Your task to perform on an android device: Open Android settings Image 0: 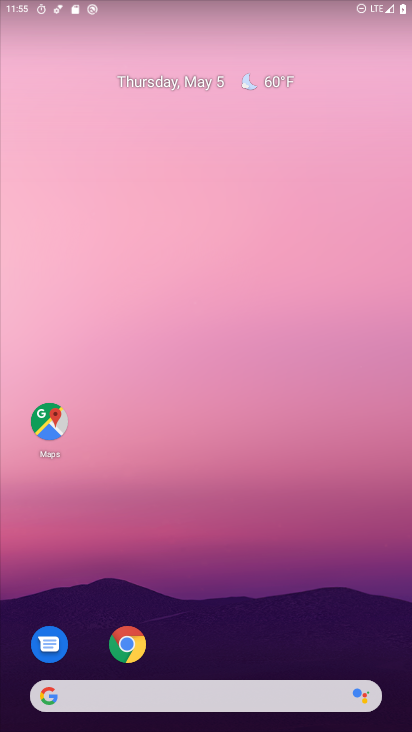
Step 0: drag from (360, 622) to (302, 9)
Your task to perform on an android device: Open Android settings Image 1: 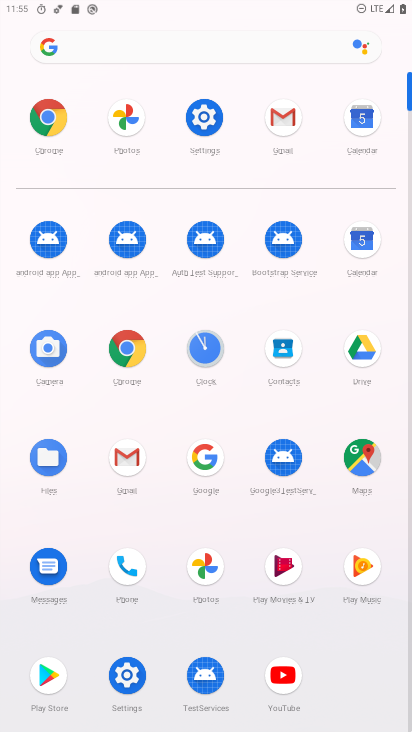
Step 1: click (126, 674)
Your task to perform on an android device: Open Android settings Image 2: 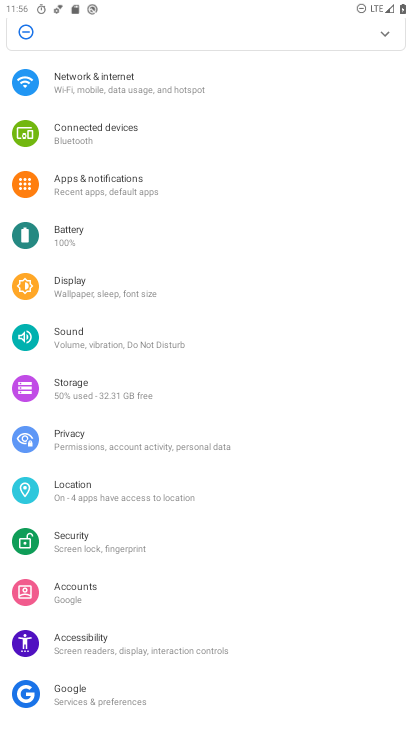
Step 2: task complete